Your task to perform on an android device: Show me the alarms in the clock app Image 0: 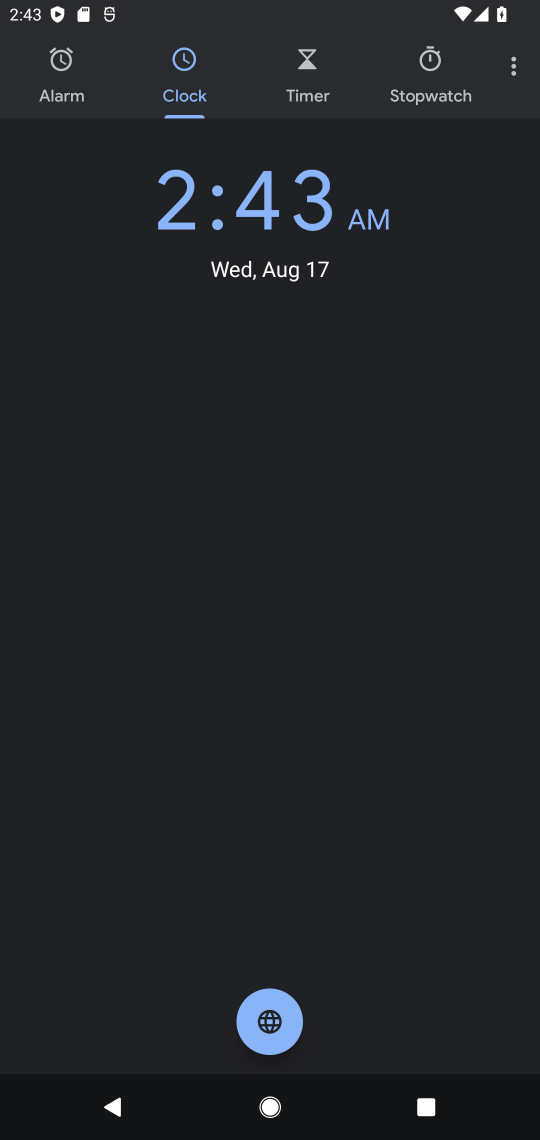
Step 0: press home button
Your task to perform on an android device: Show me the alarms in the clock app Image 1: 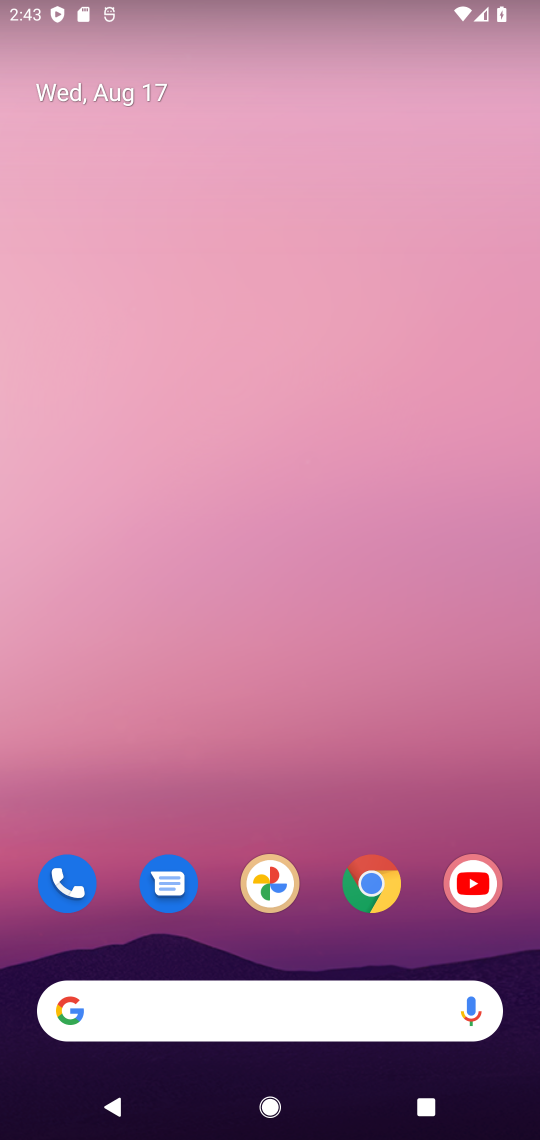
Step 1: drag from (230, 778) to (247, 240)
Your task to perform on an android device: Show me the alarms in the clock app Image 2: 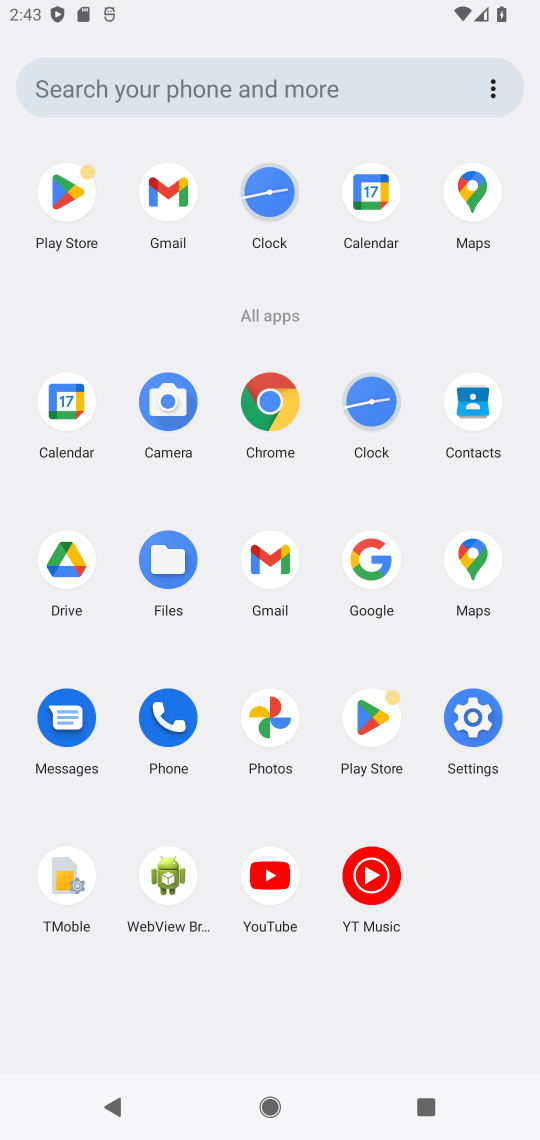
Step 2: click (377, 395)
Your task to perform on an android device: Show me the alarms in the clock app Image 3: 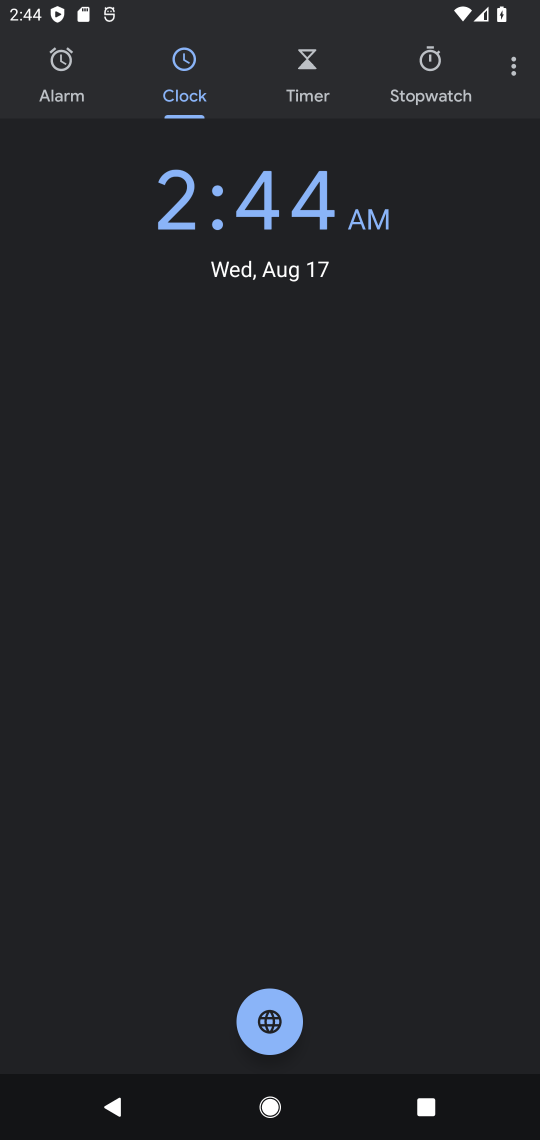
Step 3: click (523, 67)
Your task to perform on an android device: Show me the alarms in the clock app Image 4: 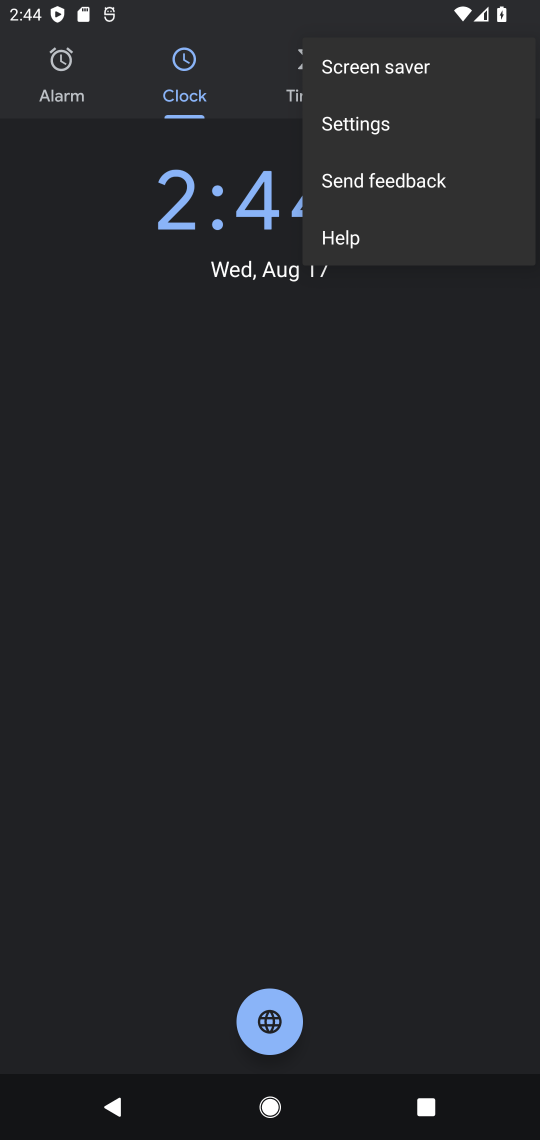
Step 4: click (145, 589)
Your task to perform on an android device: Show me the alarms in the clock app Image 5: 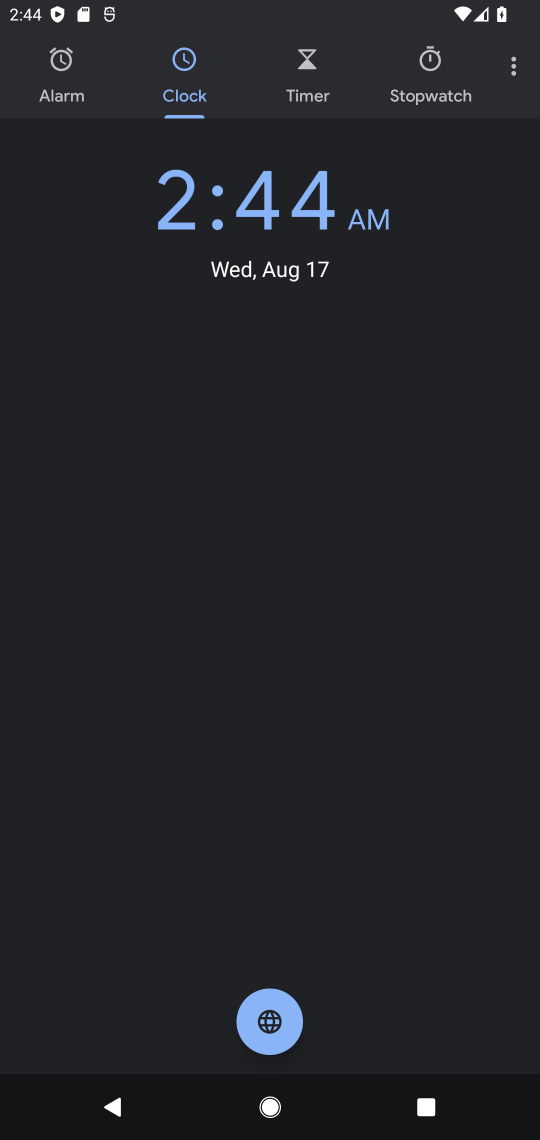
Step 5: click (88, 113)
Your task to perform on an android device: Show me the alarms in the clock app Image 6: 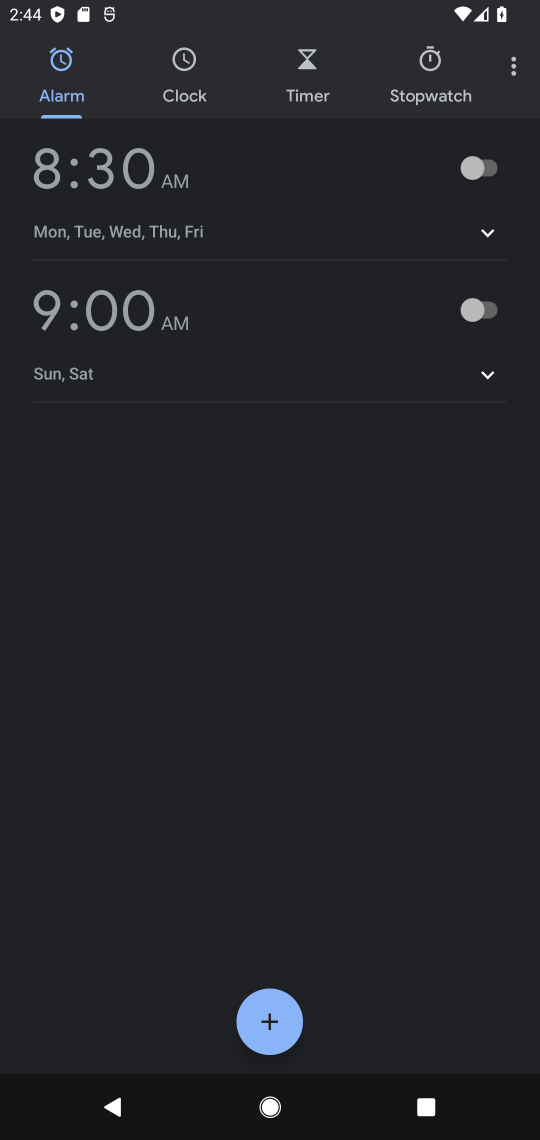
Step 6: task complete